Your task to perform on an android device: toggle javascript in the chrome app Image 0: 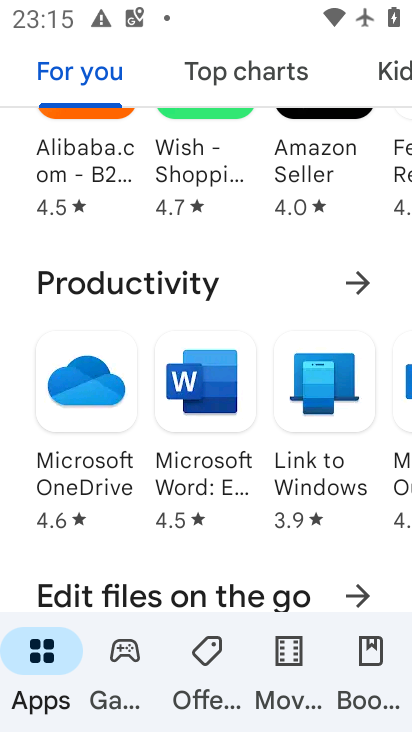
Step 0: press home button
Your task to perform on an android device: toggle javascript in the chrome app Image 1: 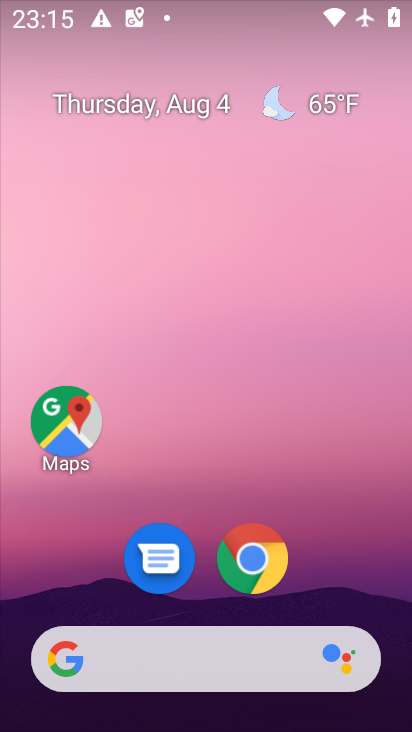
Step 1: drag from (359, 560) to (271, 127)
Your task to perform on an android device: toggle javascript in the chrome app Image 2: 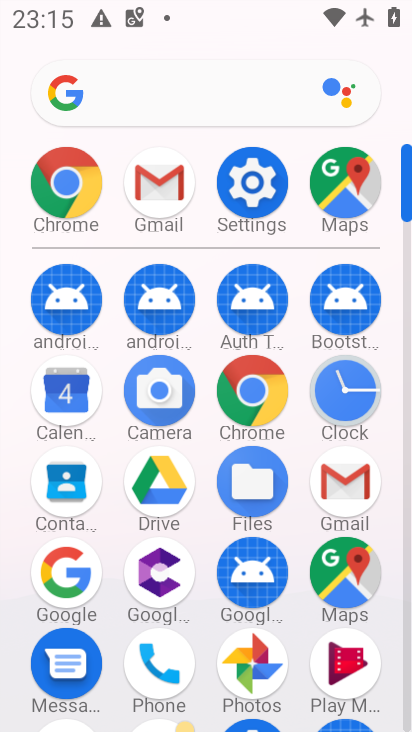
Step 2: click (259, 395)
Your task to perform on an android device: toggle javascript in the chrome app Image 3: 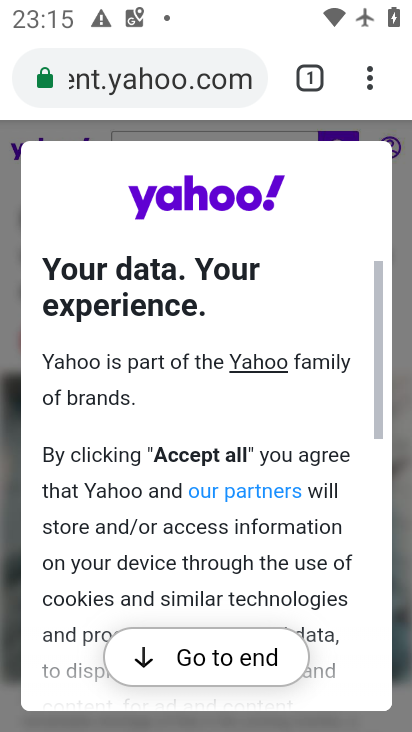
Step 3: drag from (375, 82) to (172, 618)
Your task to perform on an android device: toggle javascript in the chrome app Image 4: 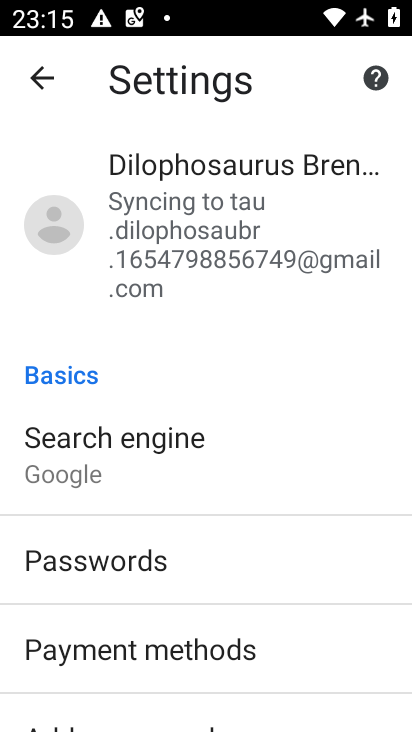
Step 4: drag from (304, 602) to (284, 98)
Your task to perform on an android device: toggle javascript in the chrome app Image 5: 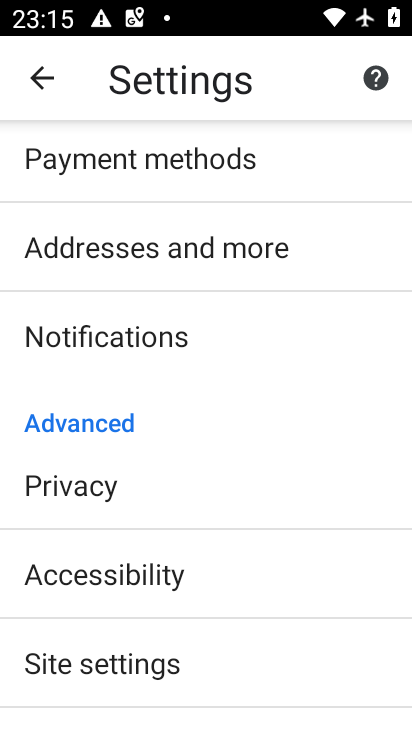
Step 5: drag from (299, 661) to (288, 332)
Your task to perform on an android device: toggle javascript in the chrome app Image 6: 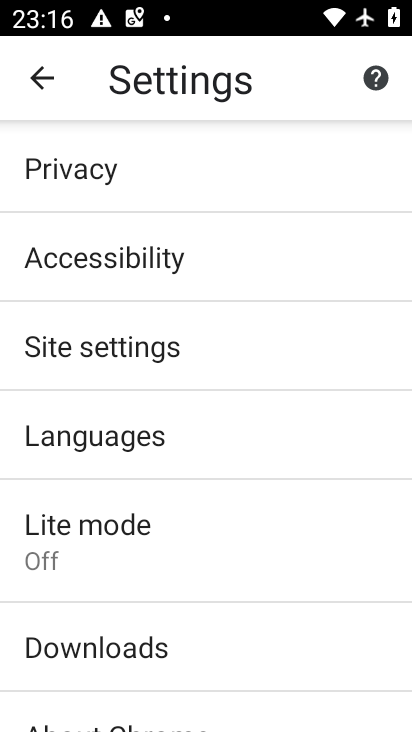
Step 6: drag from (256, 555) to (305, 271)
Your task to perform on an android device: toggle javascript in the chrome app Image 7: 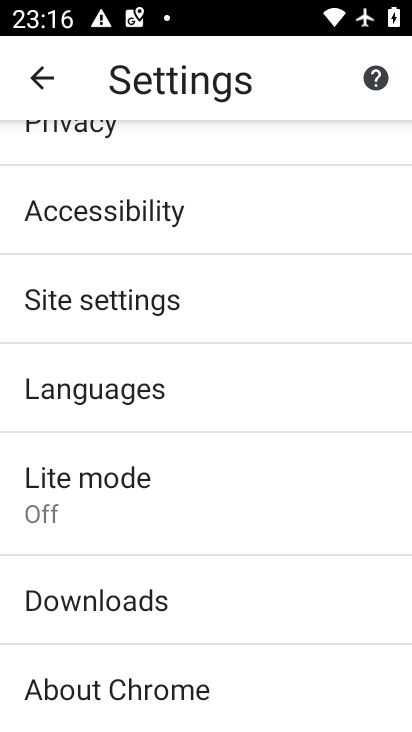
Step 7: click (121, 301)
Your task to perform on an android device: toggle javascript in the chrome app Image 8: 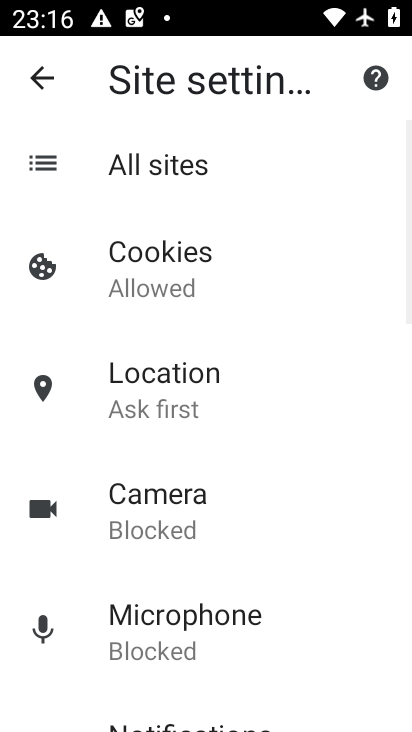
Step 8: drag from (273, 598) to (258, 247)
Your task to perform on an android device: toggle javascript in the chrome app Image 9: 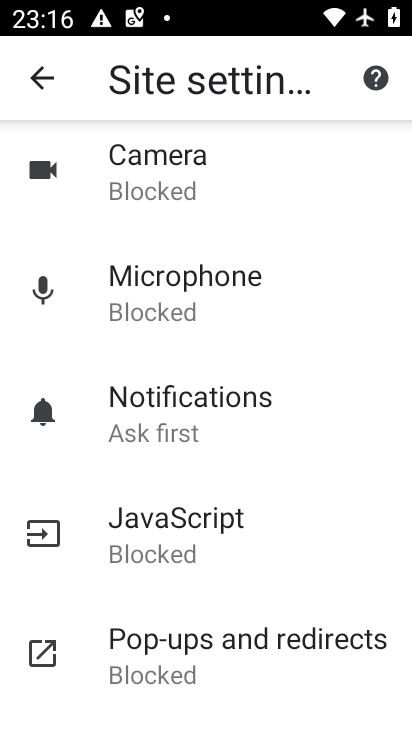
Step 9: click (182, 554)
Your task to perform on an android device: toggle javascript in the chrome app Image 10: 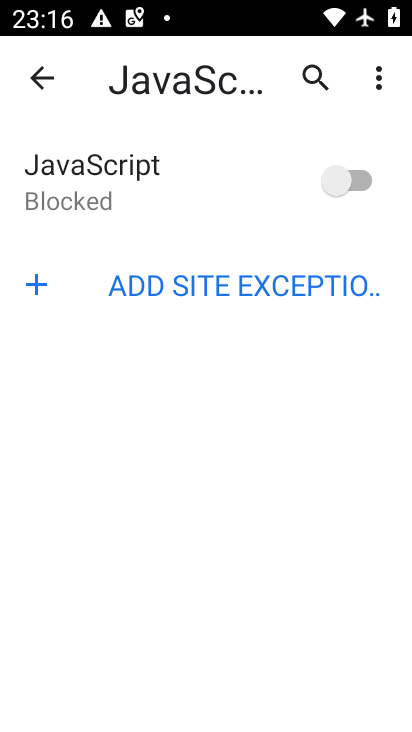
Step 10: click (358, 188)
Your task to perform on an android device: toggle javascript in the chrome app Image 11: 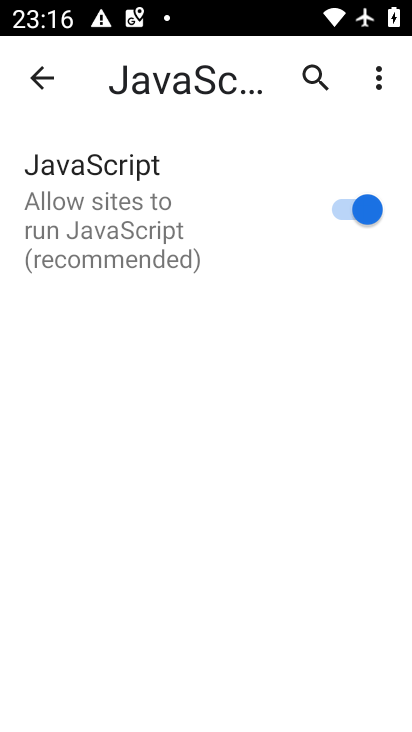
Step 11: task complete